Your task to perform on an android device: Go to Maps Image 0: 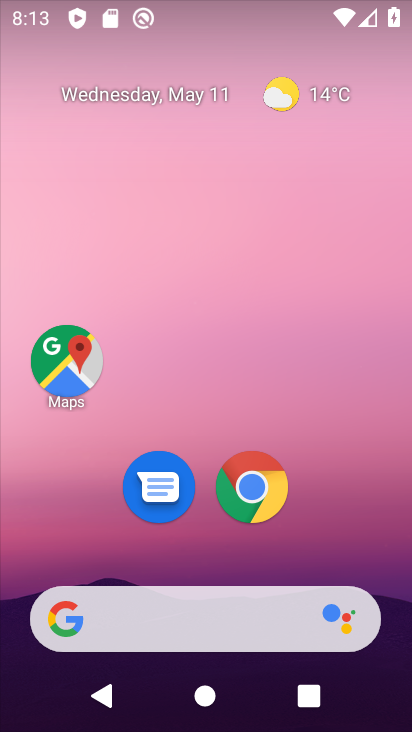
Step 0: click (57, 376)
Your task to perform on an android device: Go to Maps Image 1: 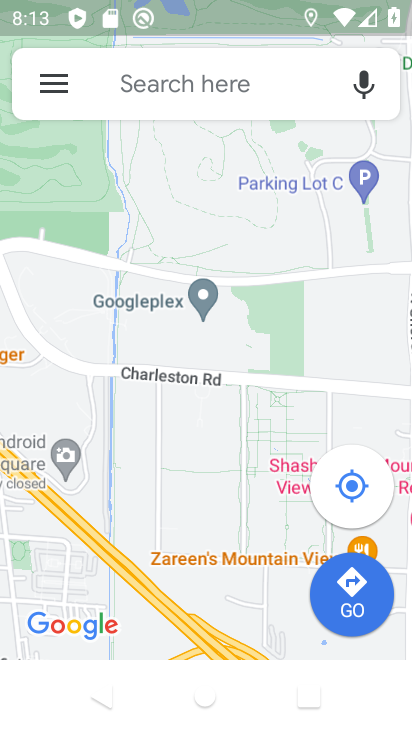
Step 1: task complete